Your task to perform on an android device: Search for "logitech g910" on costco.com, select the first entry, and add it to the cart. Image 0: 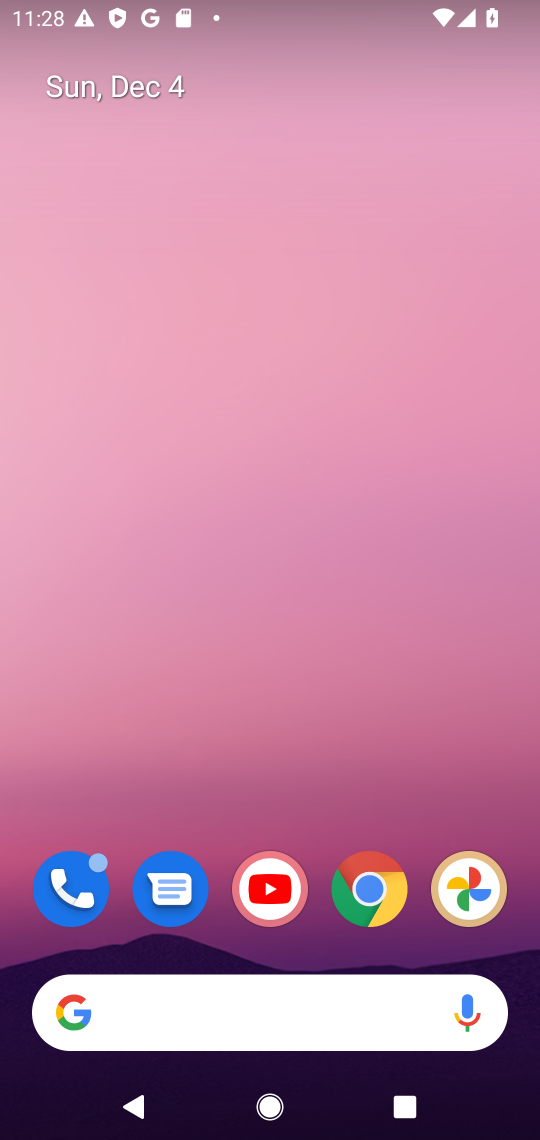
Step 0: click (381, 900)
Your task to perform on an android device: Search for "logitech g910" on costco.com, select the first entry, and add it to the cart. Image 1: 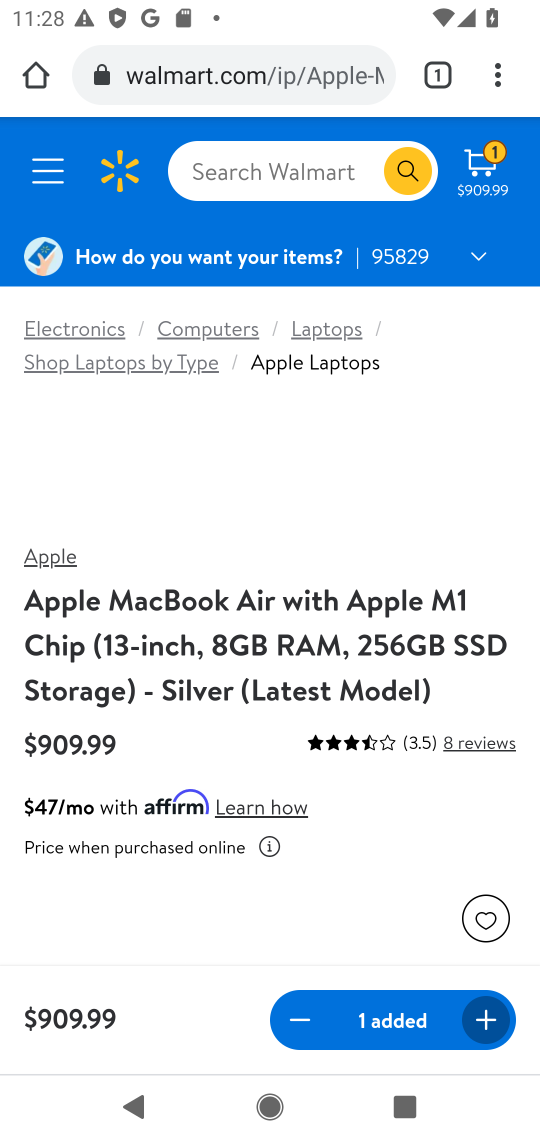
Step 1: click (316, 69)
Your task to perform on an android device: Search for "logitech g910" on costco.com, select the first entry, and add it to the cart. Image 2: 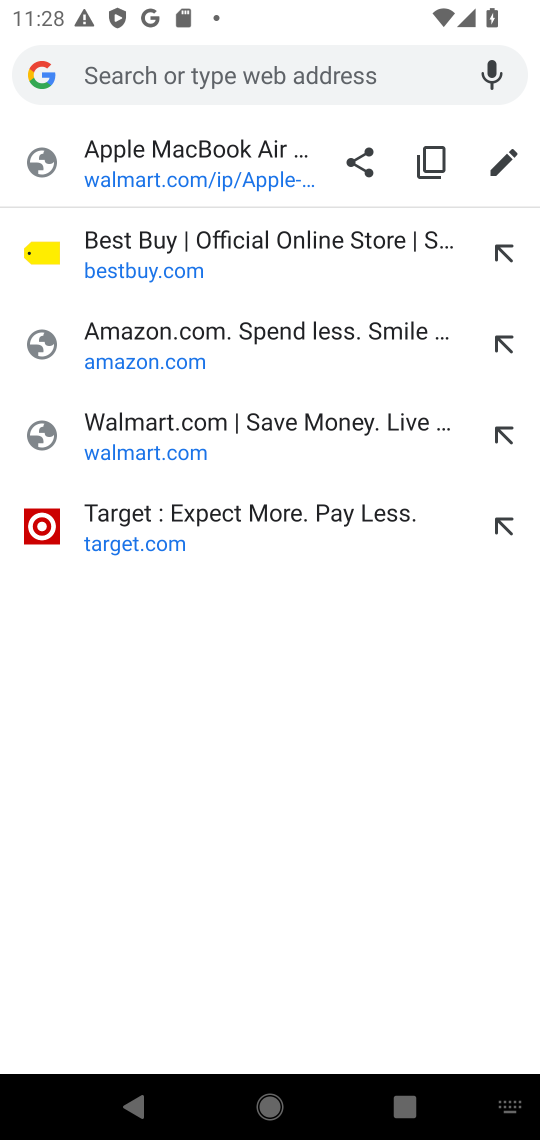
Step 2: type "costco.com"
Your task to perform on an android device: Search for "logitech g910" on costco.com, select the first entry, and add it to the cart. Image 3: 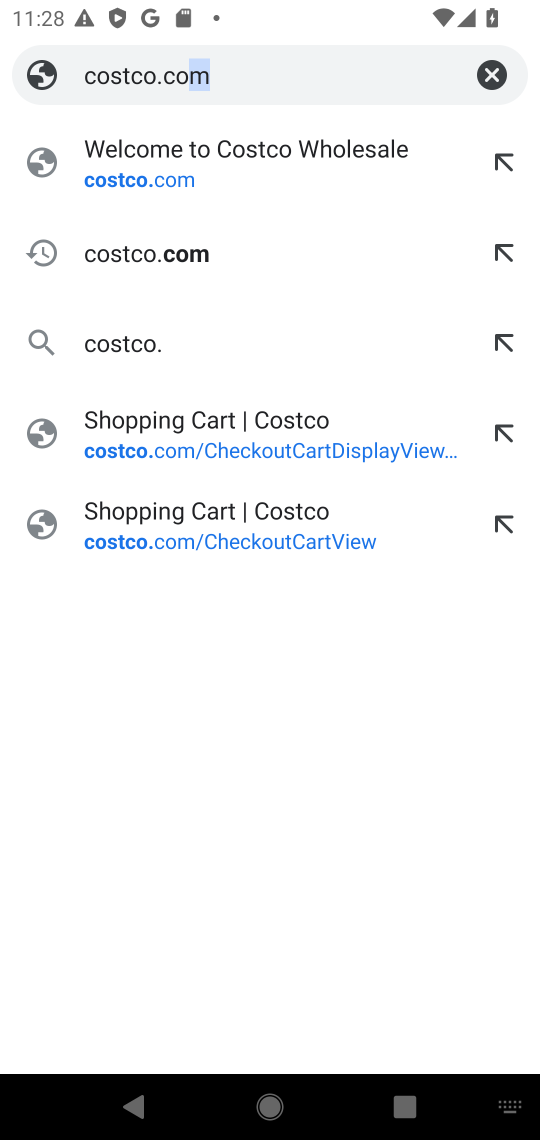
Step 3: press enter
Your task to perform on an android device: Search for "logitech g910" on costco.com, select the first entry, and add it to the cart. Image 4: 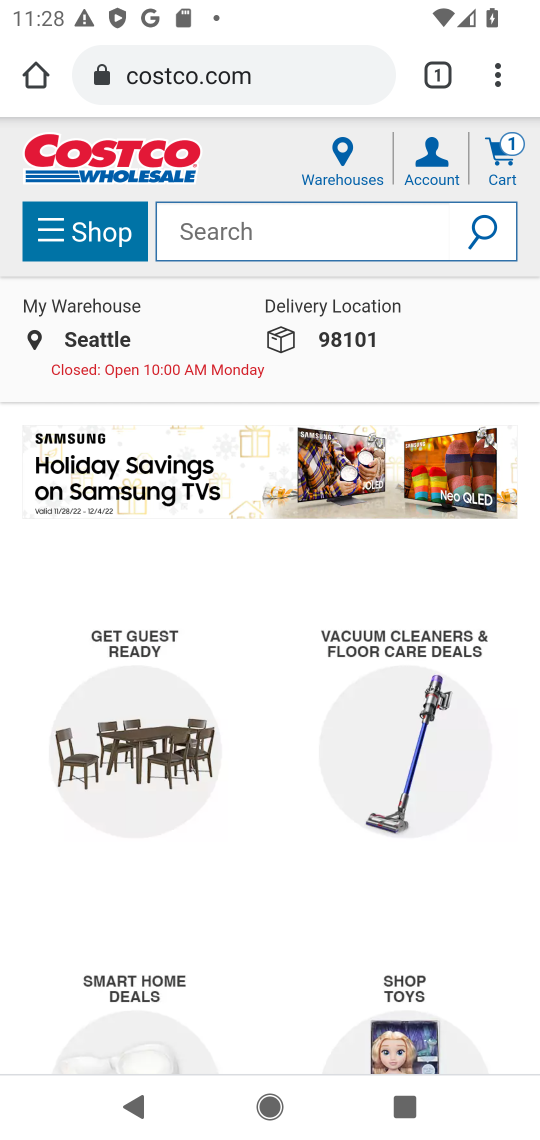
Step 4: click (349, 242)
Your task to perform on an android device: Search for "logitech g910" on costco.com, select the first entry, and add it to the cart. Image 5: 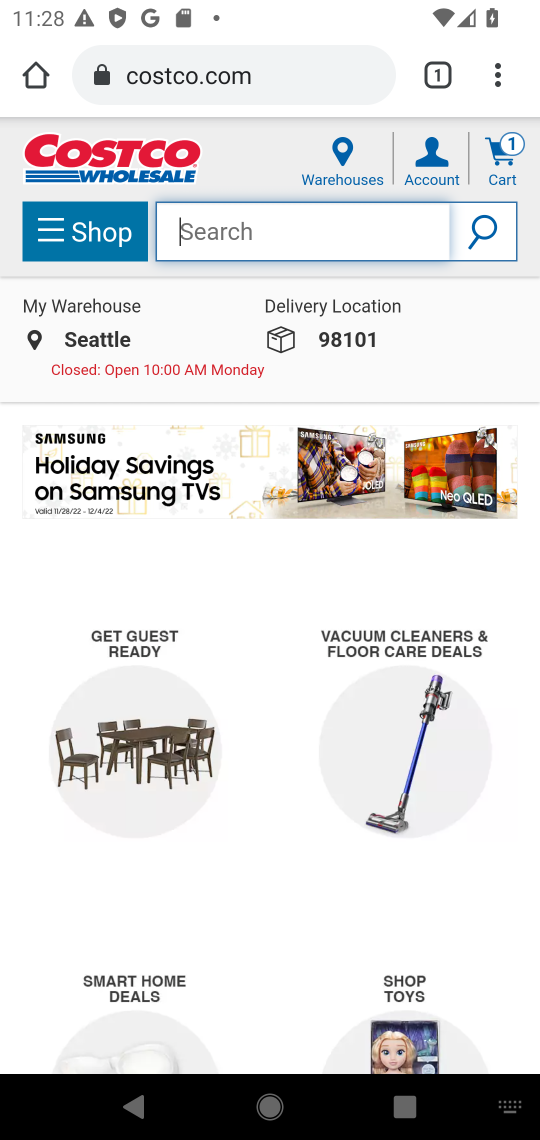
Step 5: type "logitech g910"
Your task to perform on an android device: Search for "logitech g910" on costco.com, select the first entry, and add it to the cart. Image 6: 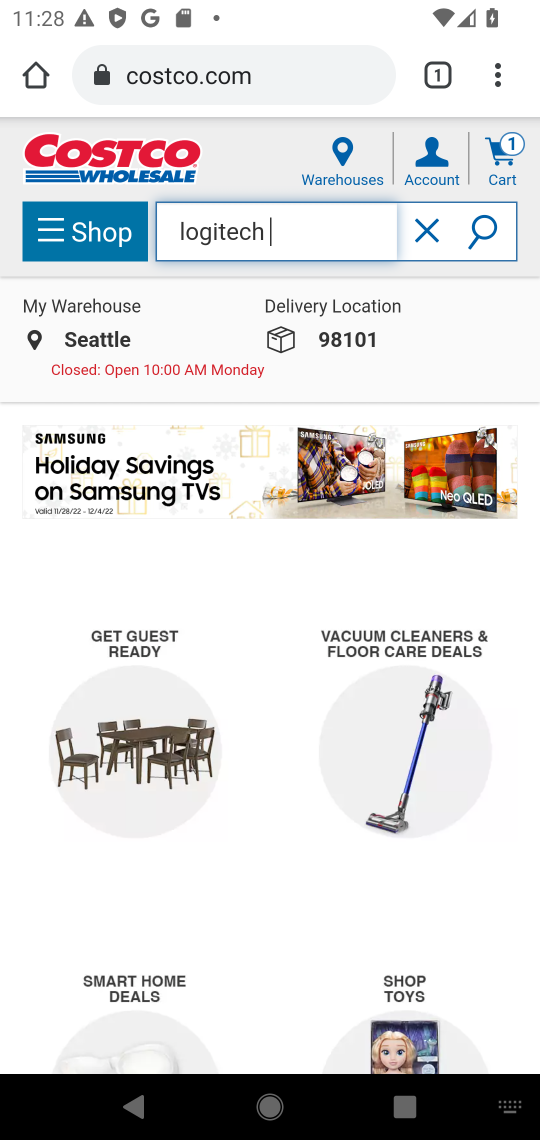
Step 6: press enter
Your task to perform on an android device: Search for "logitech g910" on costco.com, select the first entry, and add it to the cart. Image 7: 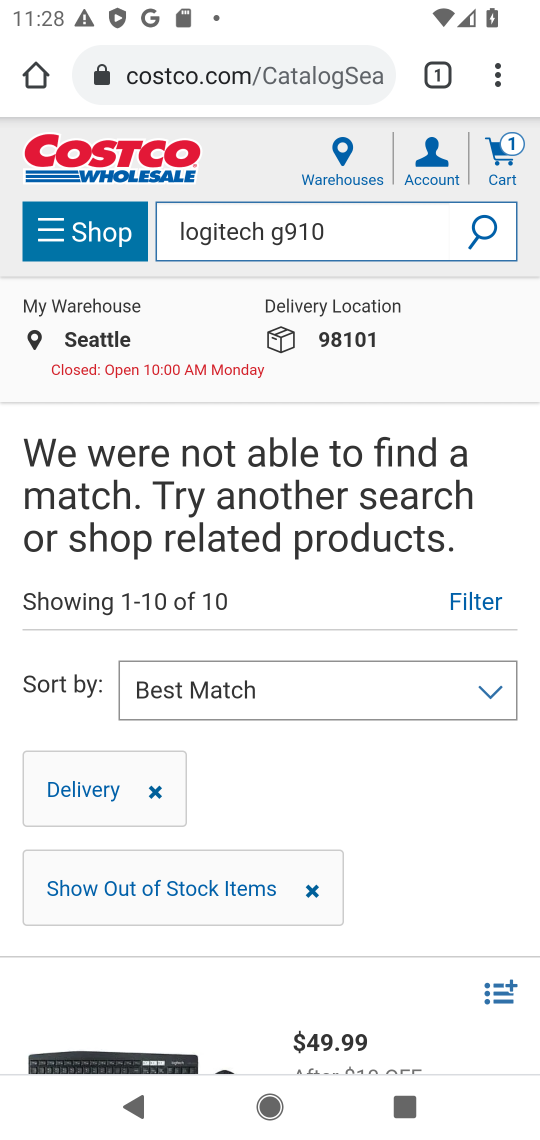
Step 7: task complete